Your task to perform on an android device: Open Google Maps and go to "Timeline" Image 0: 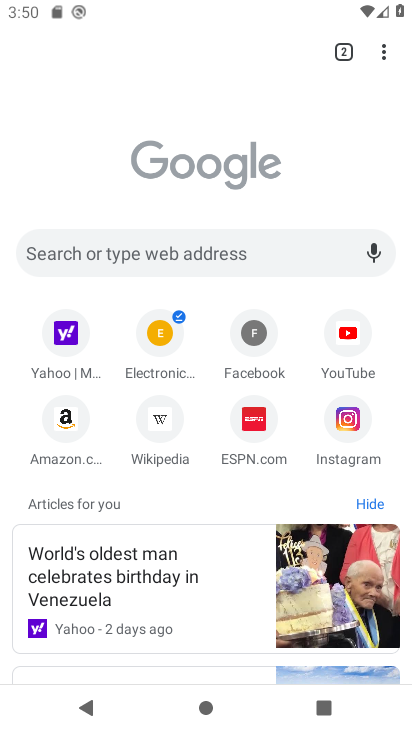
Step 0: press home button
Your task to perform on an android device: Open Google Maps and go to "Timeline" Image 1: 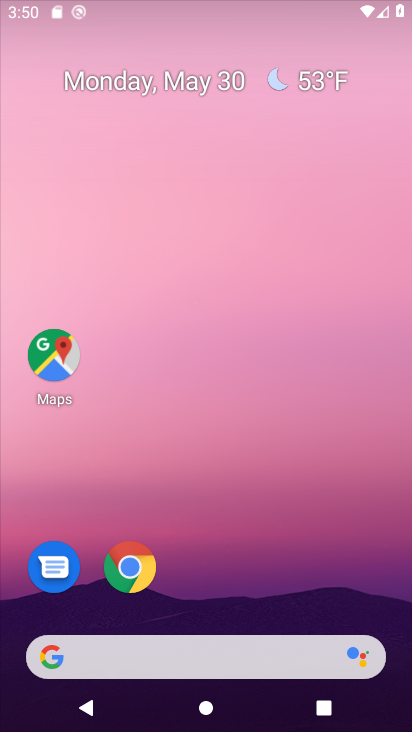
Step 1: drag from (324, 683) to (370, 60)
Your task to perform on an android device: Open Google Maps and go to "Timeline" Image 2: 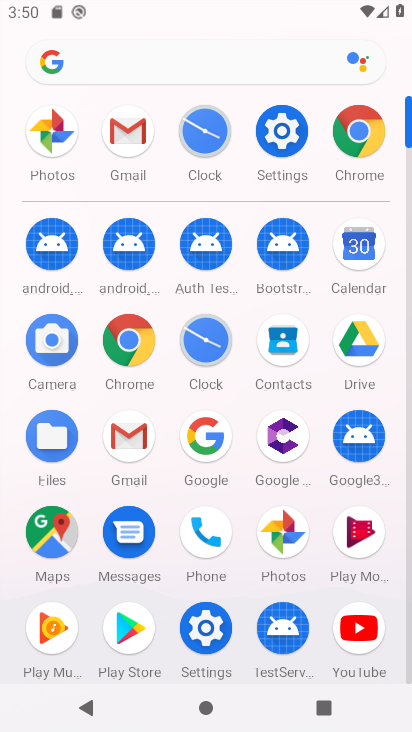
Step 2: click (44, 526)
Your task to perform on an android device: Open Google Maps and go to "Timeline" Image 3: 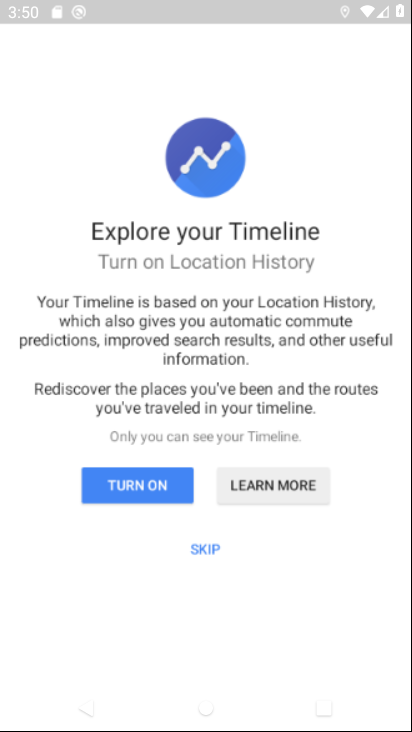
Step 3: click (194, 542)
Your task to perform on an android device: Open Google Maps and go to "Timeline" Image 4: 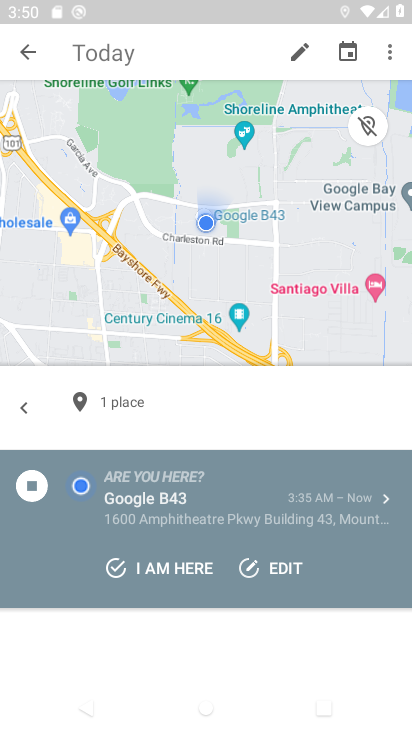
Step 4: drag from (380, 51) to (357, 325)
Your task to perform on an android device: Open Google Maps and go to "Timeline" Image 5: 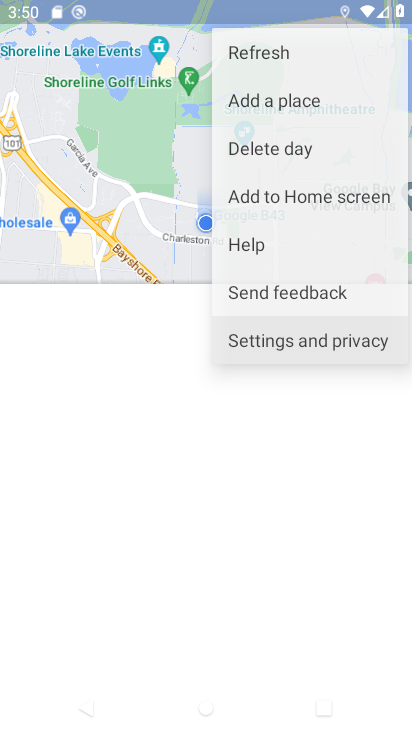
Step 5: click (319, 342)
Your task to perform on an android device: Open Google Maps and go to "Timeline" Image 6: 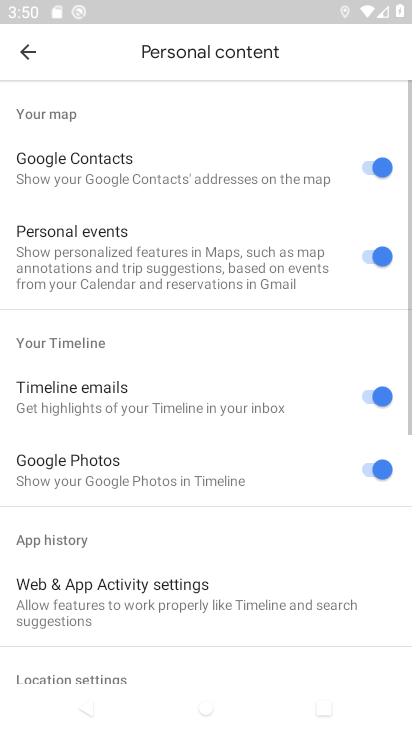
Step 6: task complete